Your task to perform on an android device: What is the recent news? Image 0: 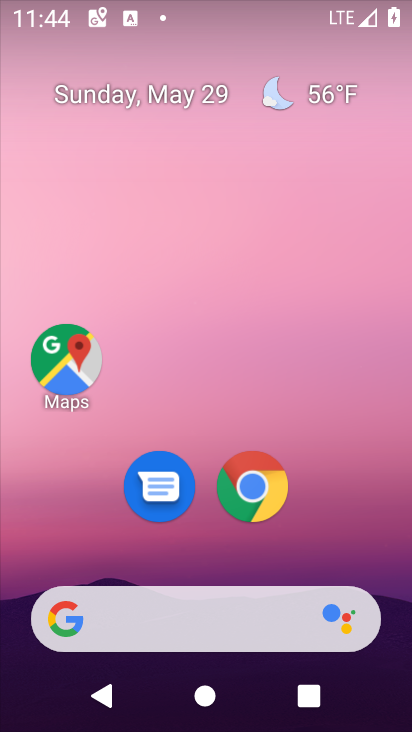
Step 0: drag from (307, 599) to (331, 156)
Your task to perform on an android device: What is the recent news? Image 1: 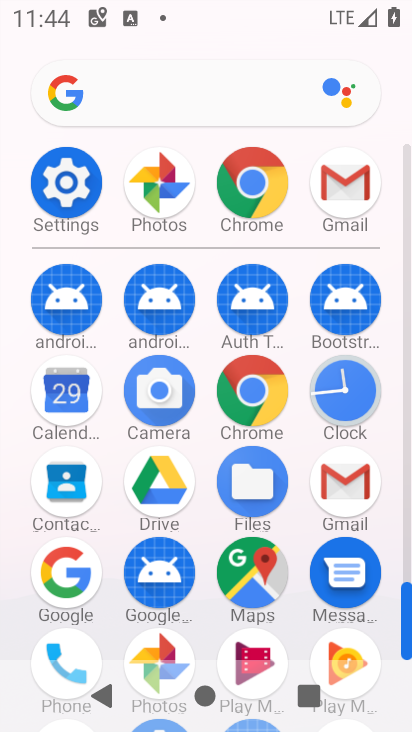
Step 1: click (82, 539)
Your task to perform on an android device: What is the recent news? Image 2: 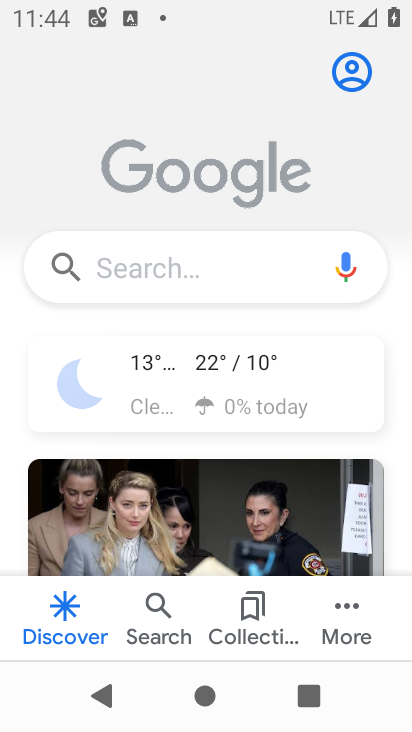
Step 2: click (181, 267)
Your task to perform on an android device: What is the recent news? Image 3: 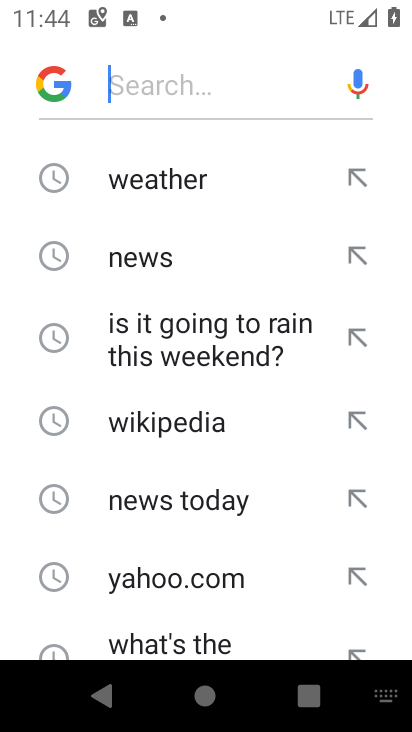
Step 3: click (207, 260)
Your task to perform on an android device: What is the recent news? Image 4: 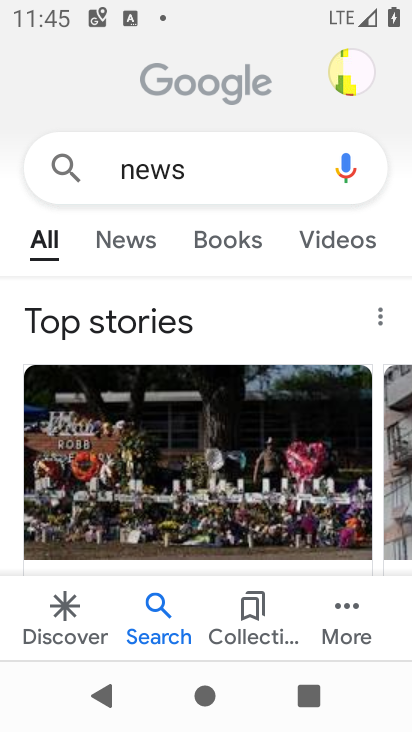
Step 4: click (147, 248)
Your task to perform on an android device: What is the recent news? Image 5: 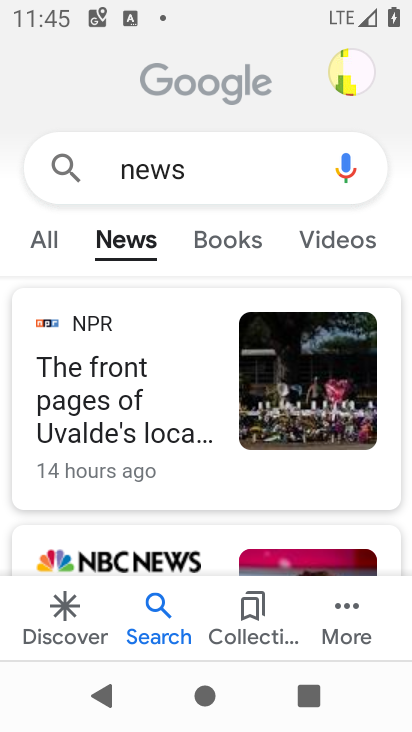
Step 5: task complete